Your task to perform on an android device: all mails in gmail Image 0: 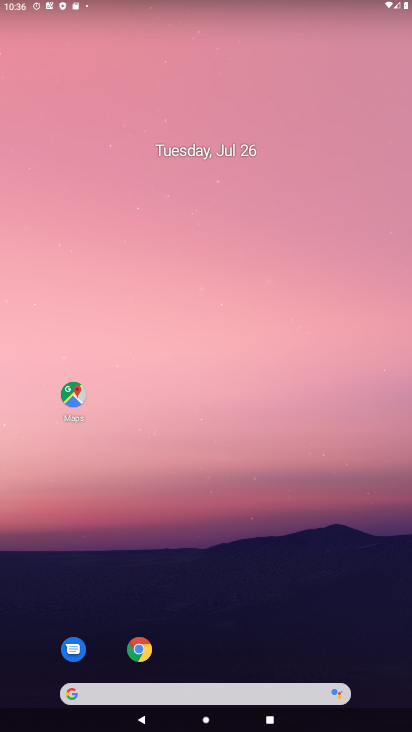
Step 0: drag from (245, 466) to (310, 65)
Your task to perform on an android device: all mails in gmail Image 1: 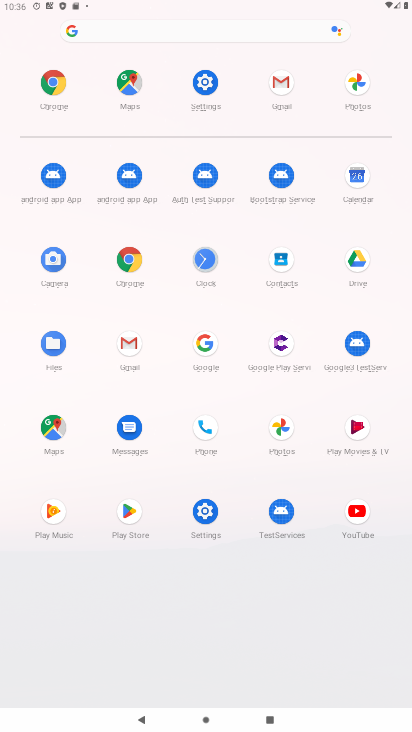
Step 1: click (119, 345)
Your task to perform on an android device: all mails in gmail Image 2: 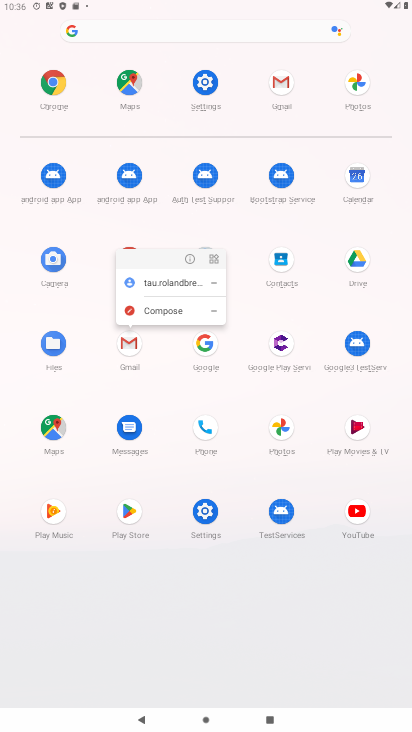
Step 2: click (188, 254)
Your task to perform on an android device: all mails in gmail Image 3: 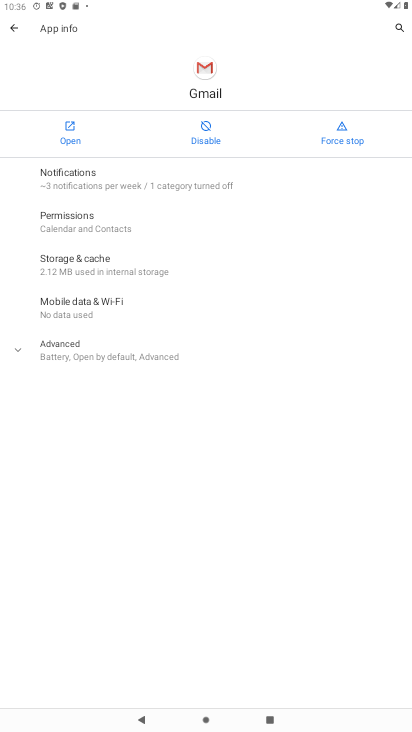
Step 3: click (71, 133)
Your task to perform on an android device: all mails in gmail Image 4: 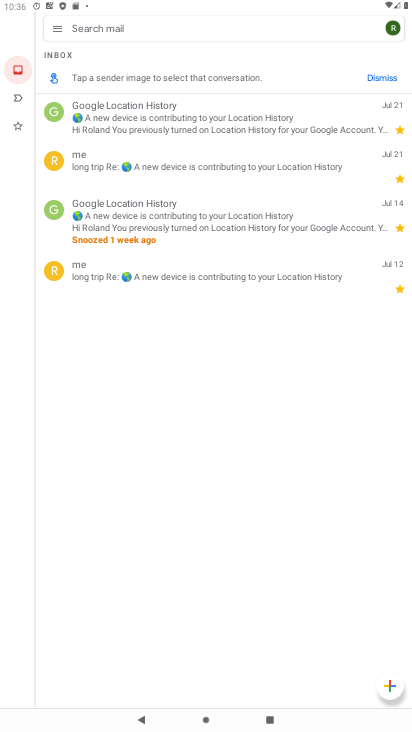
Step 4: click (53, 31)
Your task to perform on an android device: all mails in gmail Image 5: 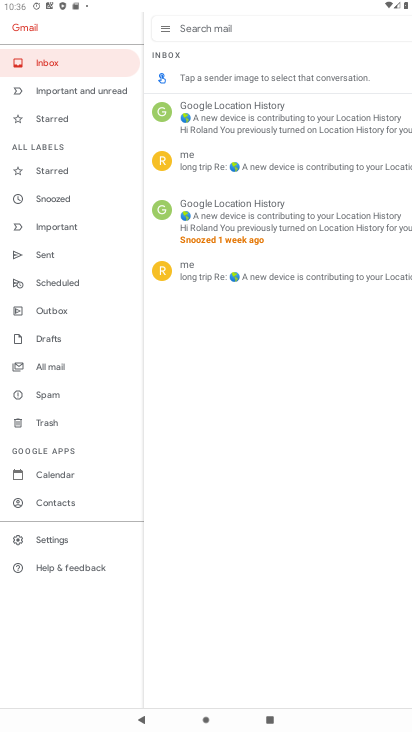
Step 5: click (36, 370)
Your task to perform on an android device: all mails in gmail Image 6: 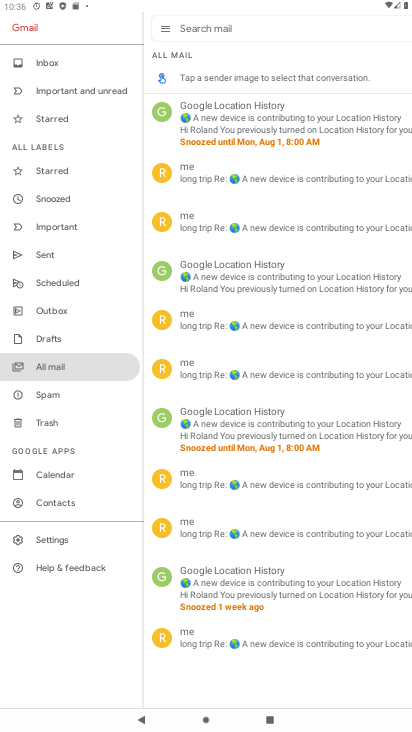
Step 6: task complete